Your task to perform on an android device: Open Google Chrome and click the shortcut for Amazon.com Image 0: 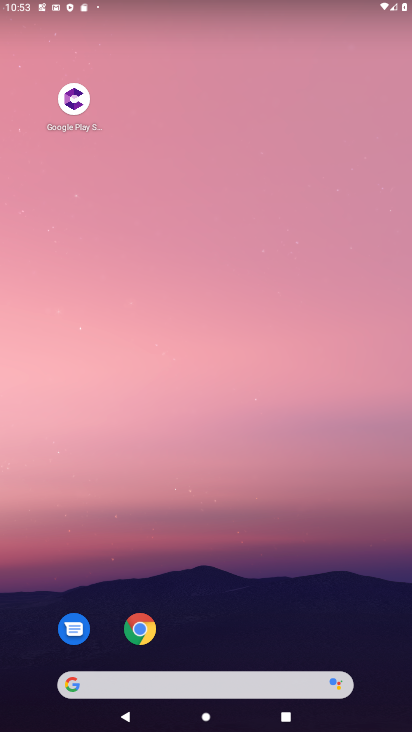
Step 0: press home button
Your task to perform on an android device: Open Google Chrome and click the shortcut for Amazon.com Image 1: 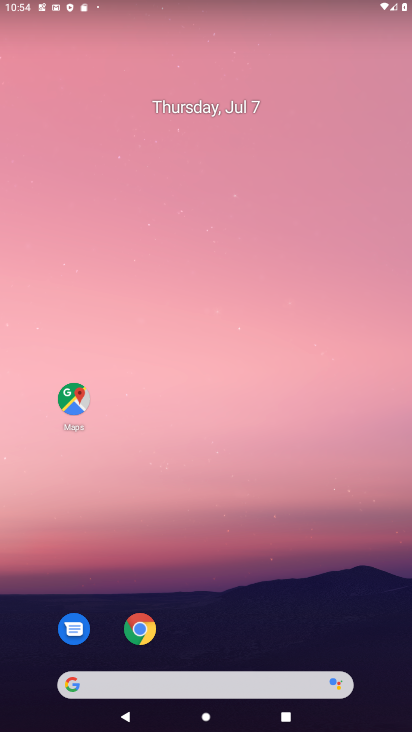
Step 1: drag from (356, 660) to (352, 83)
Your task to perform on an android device: Open Google Chrome and click the shortcut for Amazon.com Image 2: 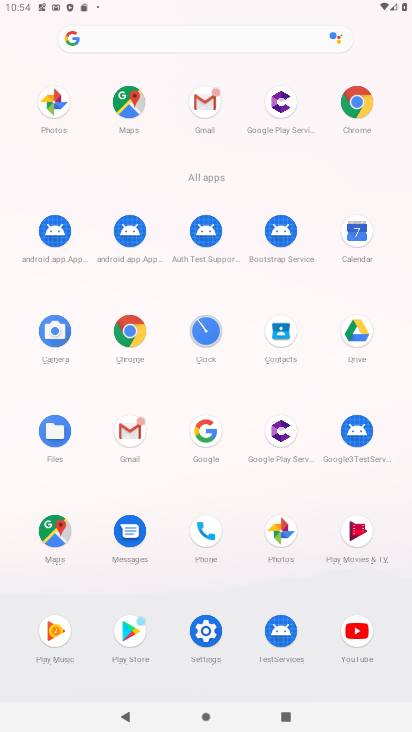
Step 2: click (129, 337)
Your task to perform on an android device: Open Google Chrome and click the shortcut for Amazon.com Image 3: 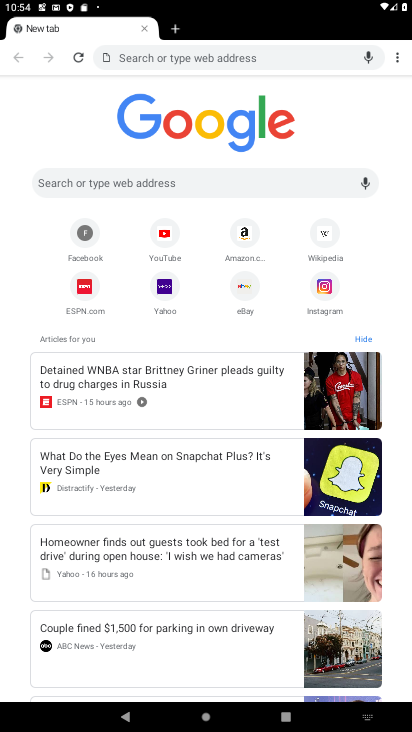
Step 3: click (247, 231)
Your task to perform on an android device: Open Google Chrome and click the shortcut for Amazon.com Image 4: 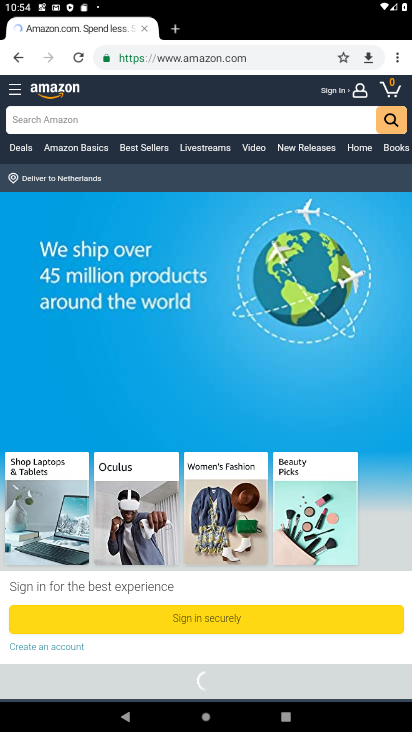
Step 4: task complete